Your task to perform on an android device: Show me recent news Image 0: 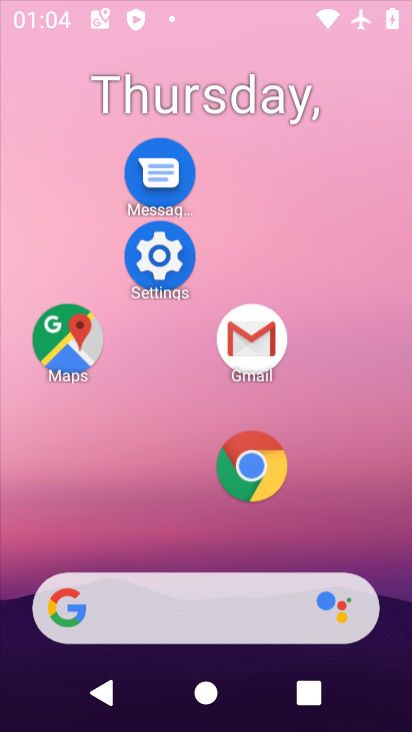
Step 0: click (242, 151)
Your task to perform on an android device: Show me recent news Image 1: 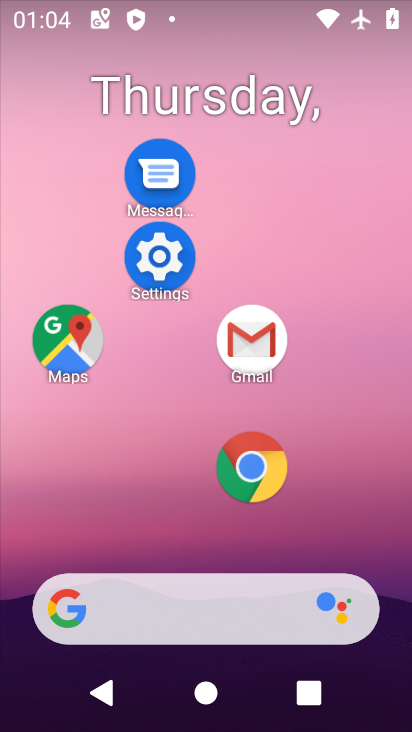
Step 1: drag from (181, 557) to (231, 193)
Your task to perform on an android device: Show me recent news Image 2: 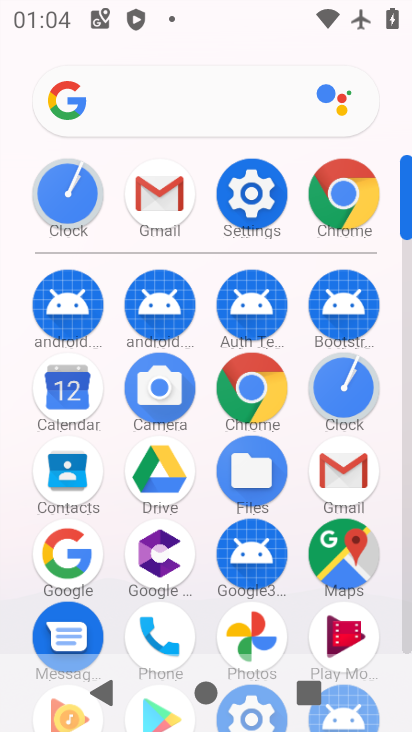
Step 2: click (180, 109)
Your task to perform on an android device: Show me recent news Image 3: 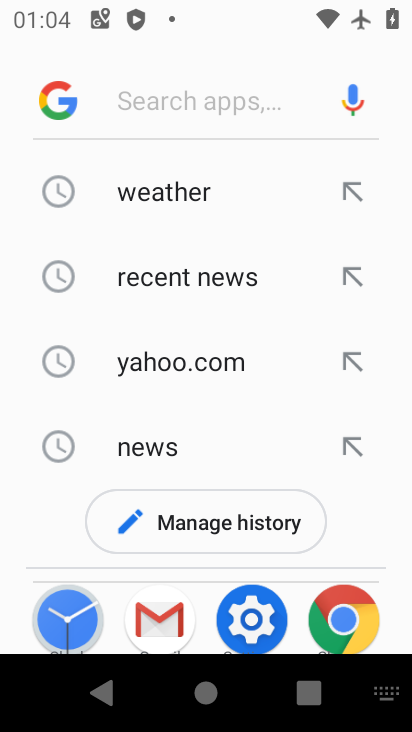
Step 3: click (159, 281)
Your task to perform on an android device: Show me recent news Image 4: 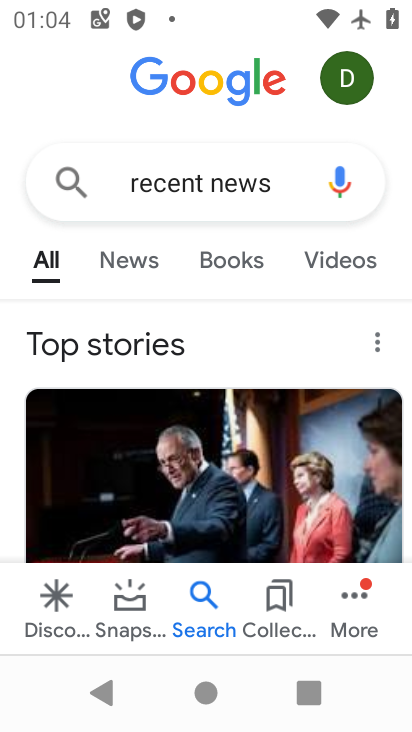
Step 4: task complete